Your task to perform on an android device: Is it going to rain tomorrow? Image 0: 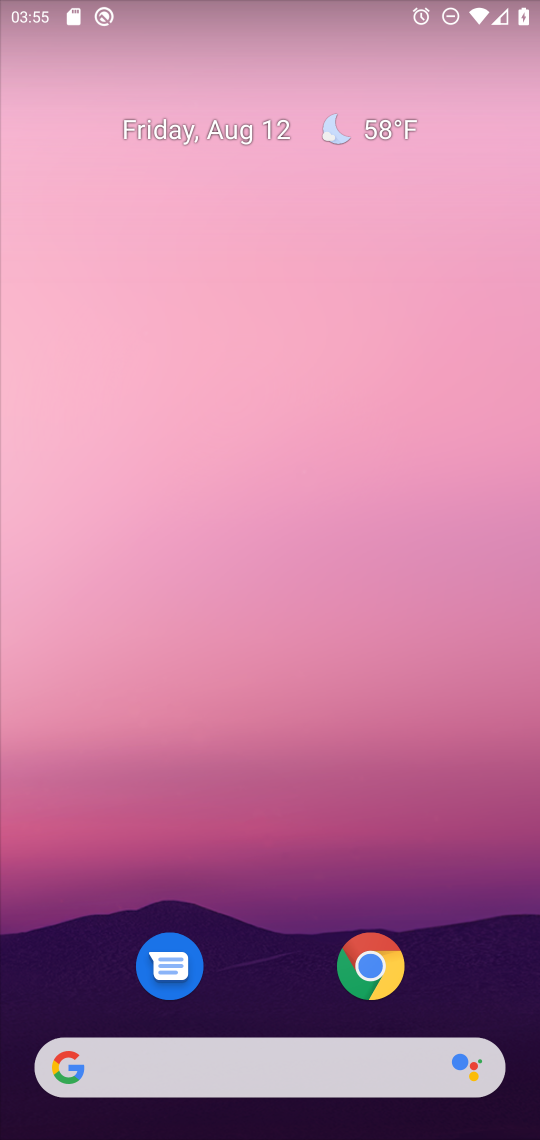
Step 0: click (391, 129)
Your task to perform on an android device: Is it going to rain tomorrow? Image 1: 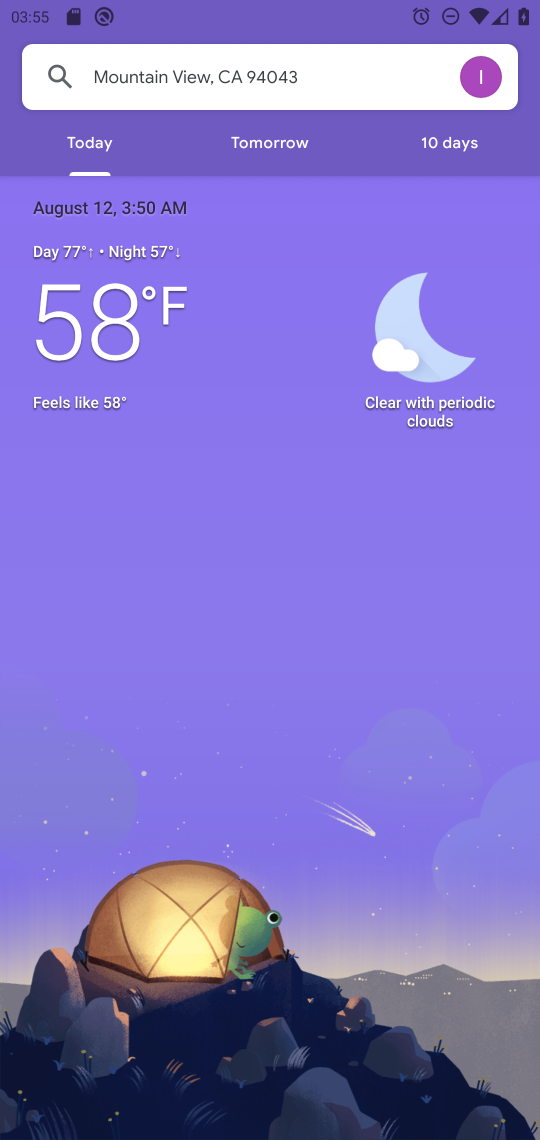
Step 1: click (298, 140)
Your task to perform on an android device: Is it going to rain tomorrow? Image 2: 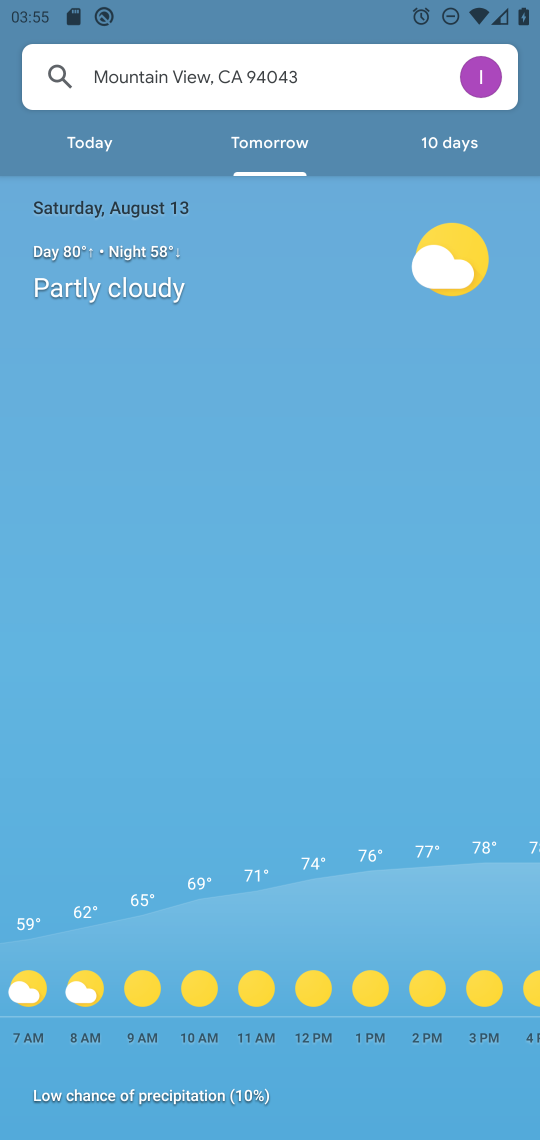
Step 2: task complete